Your task to perform on an android device: Open Youtube and go to the subscriptions tab Image 0: 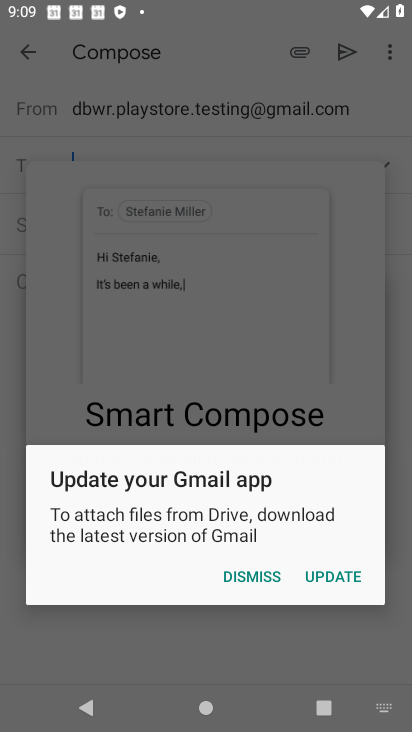
Step 0: press home button
Your task to perform on an android device: Open Youtube and go to the subscriptions tab Image 1: 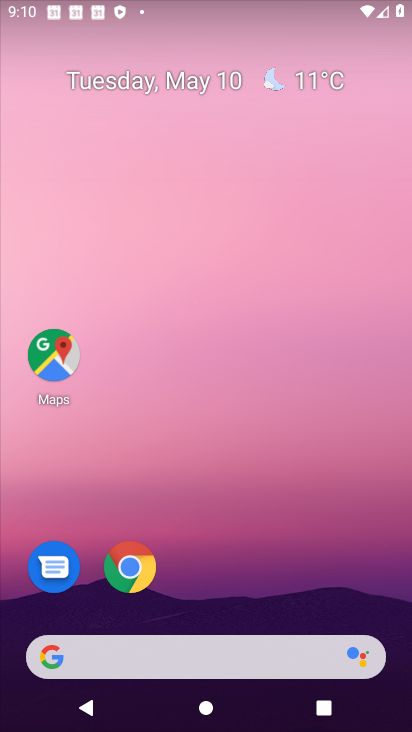
Step 1: drag from (287, 638) to (249, 274)
Your task to perform on an android device: Open Youtube and go to the subscriptions tab Image 2: 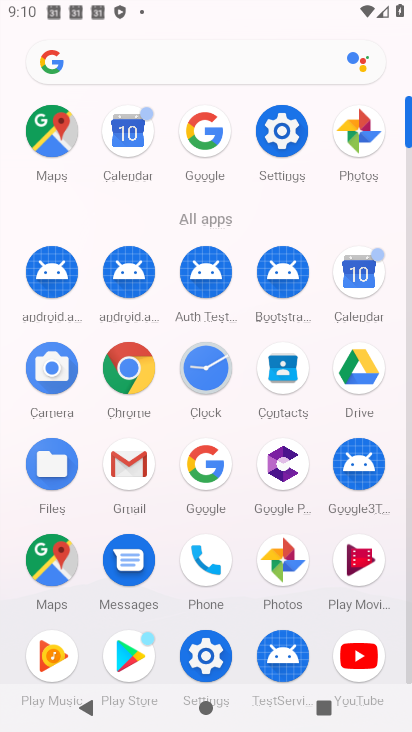
Step 2: click (378, 651)
Your task to perform on an android device: Open Youtube and go to the subscriptions tab Image 3: 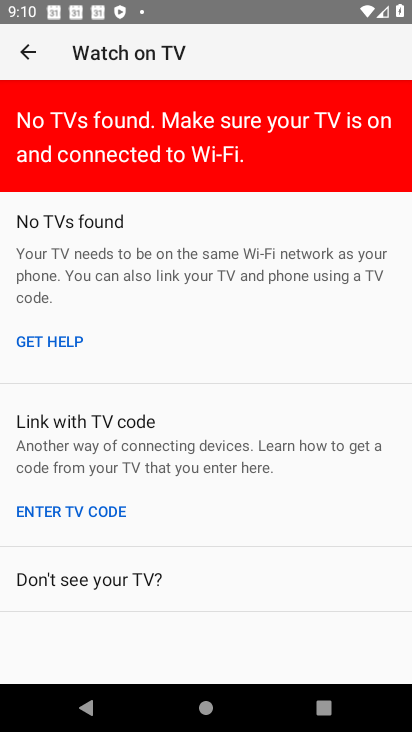
Step 3: click (13, 41)
Your task to perform on an android device: Open Youtube and go to the subscriptions tab Image 4: 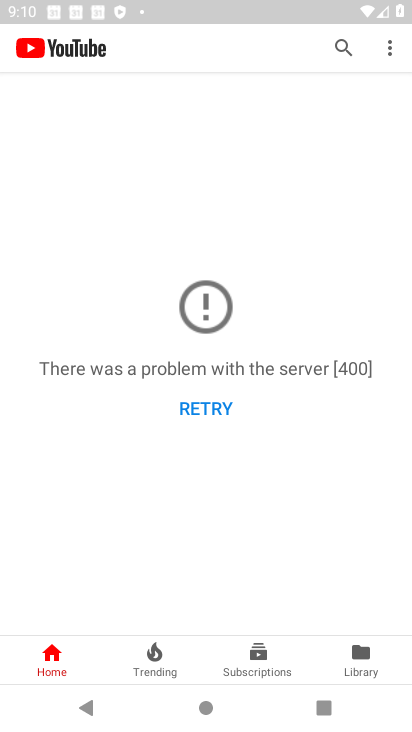
Step 4: click (270, 657)
Your task to perform on an android device: Open Youtube and go to the subscriptions tab Image 5: 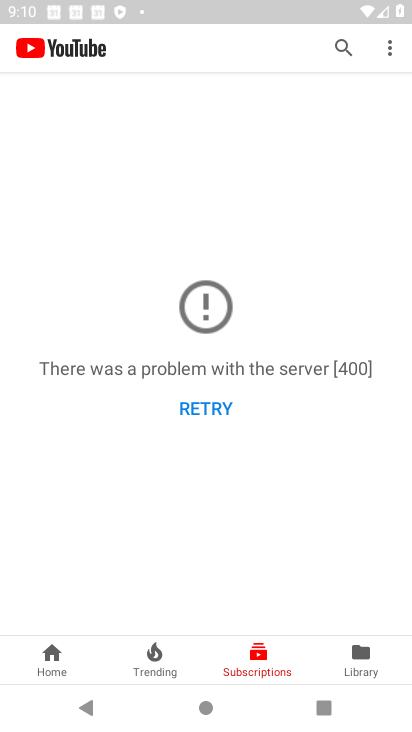
Step 5: task complete